Your task to perform on an android device: delete browsing data in the chrome app Image 0: 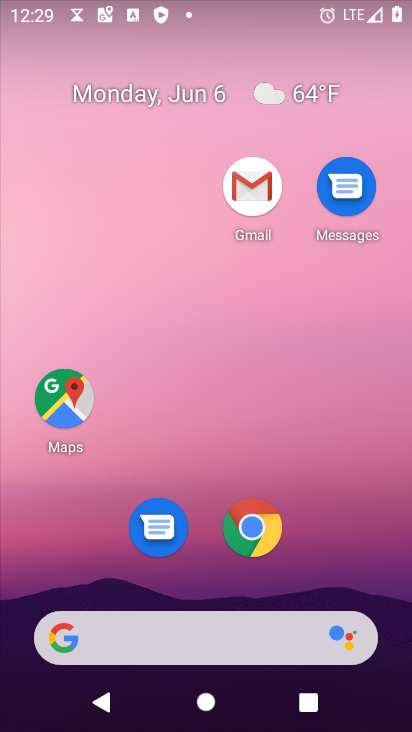
Step 0: click (253, 521)
Your task to perform on an android device: delete browsing data in the chrome app Image 1: 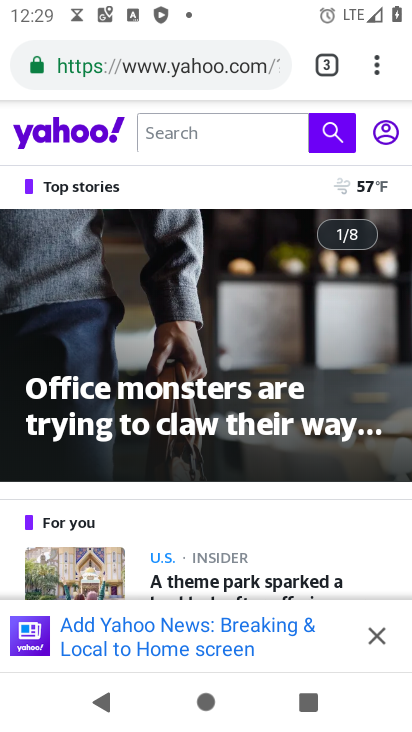
Step 1: click (383, 61)
Your task to perform on an android device: delete browsing data in the chrome app Image 2: 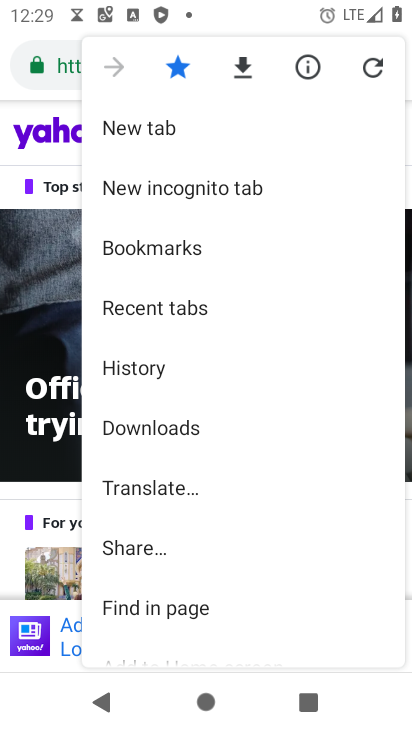
Step 2: click (139, 375)
Your task to perform on an android device: delete browsing data in the chrome app Image 3: 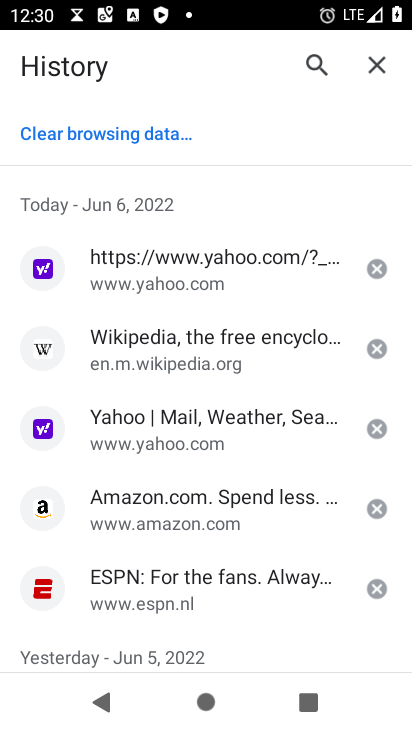
Step 3: click (130, 134)
Your task to perform on an android device: delete browsing data in the chrome app Image 4: 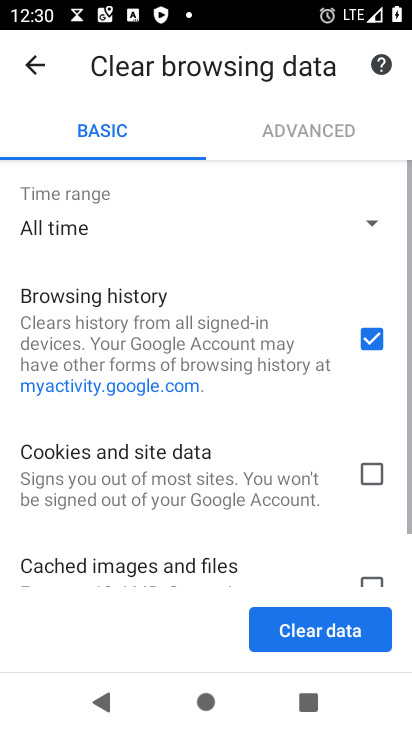
Step 4: click (333, 638)
Your task to perform on an android device: delete browsing data in the chrome app Image 5: 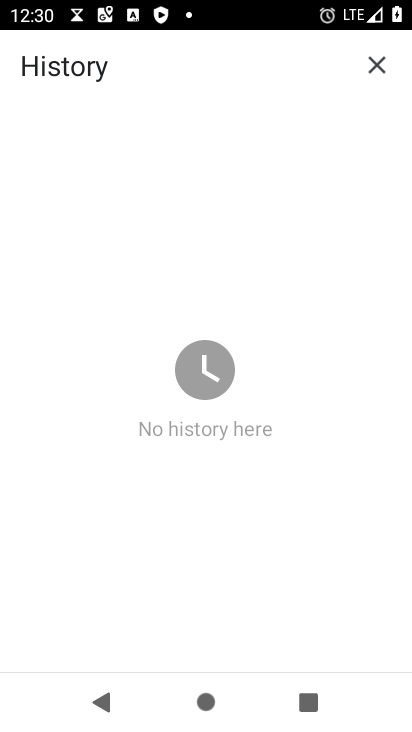
Step 5: task complete